Your task to perform on an android device: toggle pop-ups in chrome Image 0: 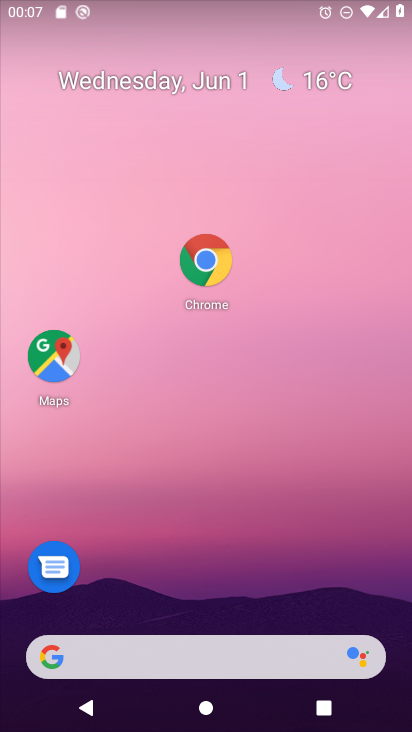
Step 0: click (230, 258)
Your task to perform on an android device: toggle pop-ups in chrome Image 1: 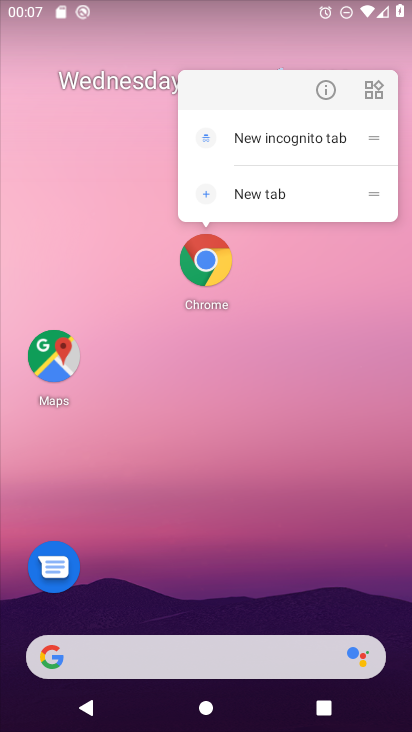
Step 1: click (196, 267)
Your task to perform on an android device: toggle pop-ups in chrome Image 2: 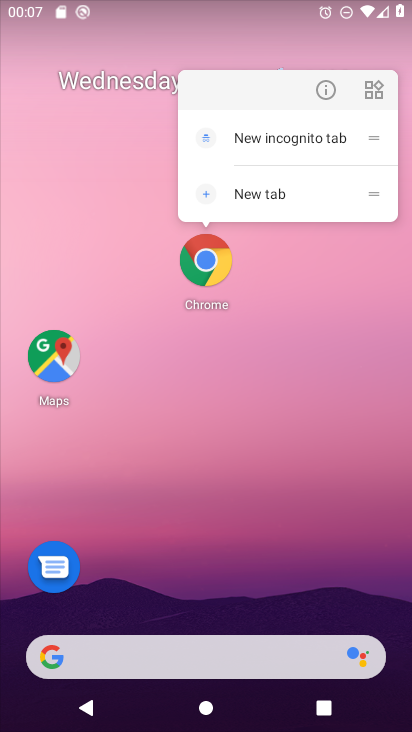
Step 2: click (204, 267)
Your task to perform on an android device: toggle pop-ups in chrome Image 3: 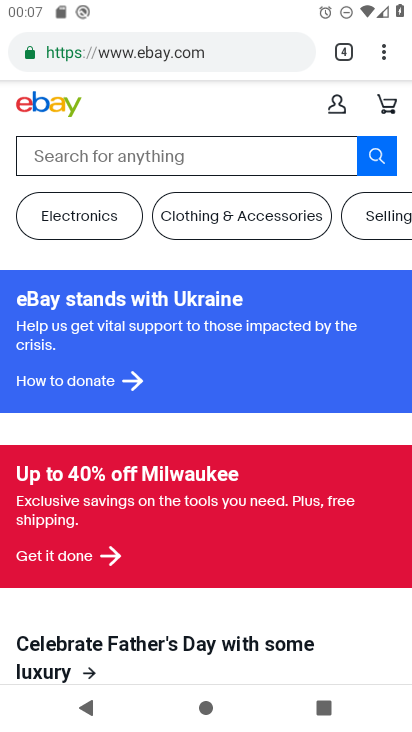
Step 3: click (381, 56)
Your task to perform on an android device: toggle pop-ups in chrome Image 4: 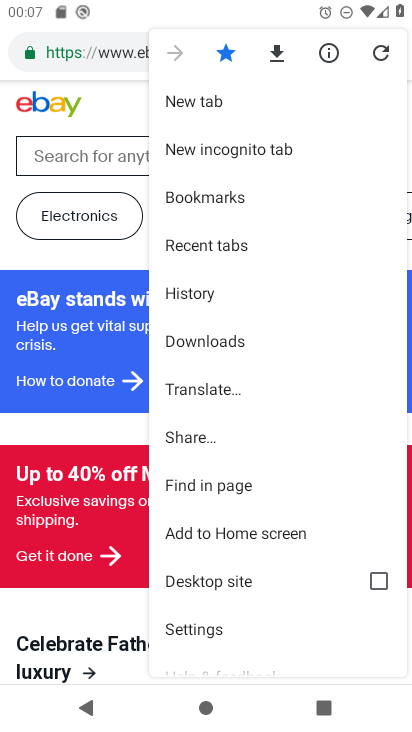
Step 4: click (205, 618)
Your task to perform on an android device: toggle pop-ups in chrome Image 5: 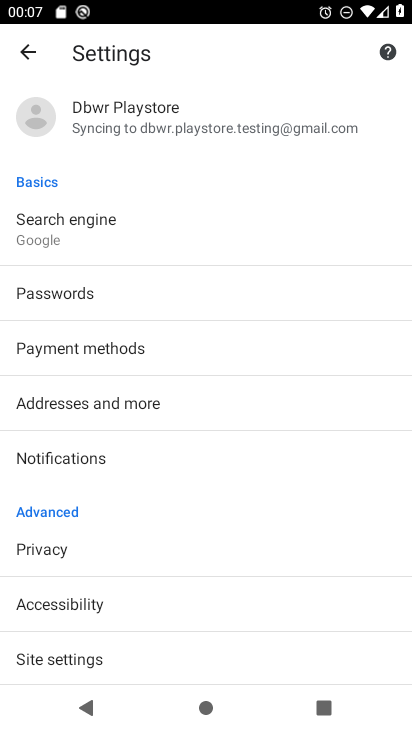
Step 5: click (45, 658)
Your task to perform on an android device: toggle pop-ups in chrome Image 6: 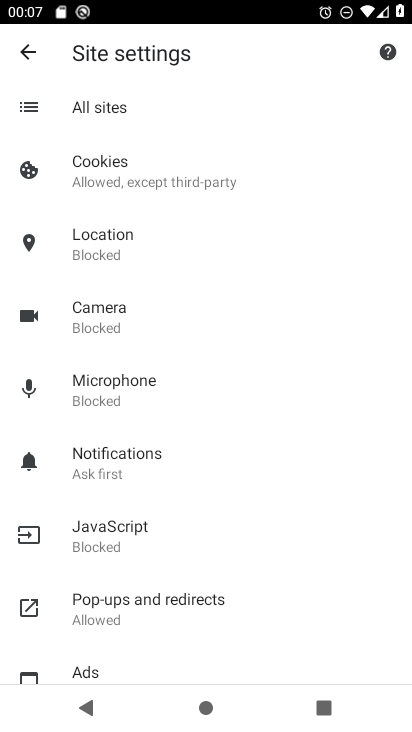
Step 6: click (116, 605)
Your task to perform on an android device: toggle pop-ups in chrome Image 7: 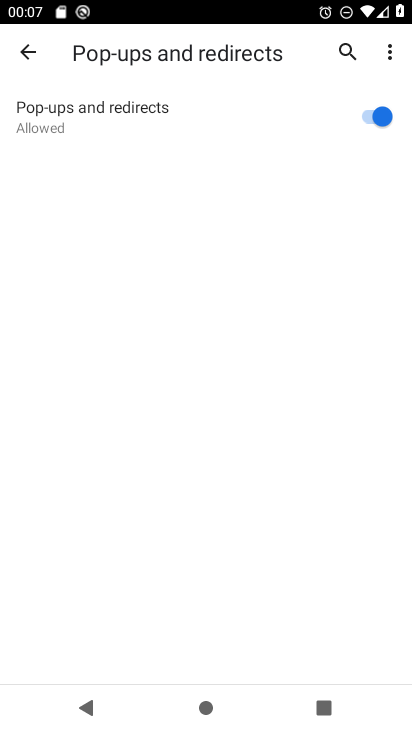
Step 7: click (365, 112)
Your task to perform on an android device: toggle pop-ups in chrome Image 8: 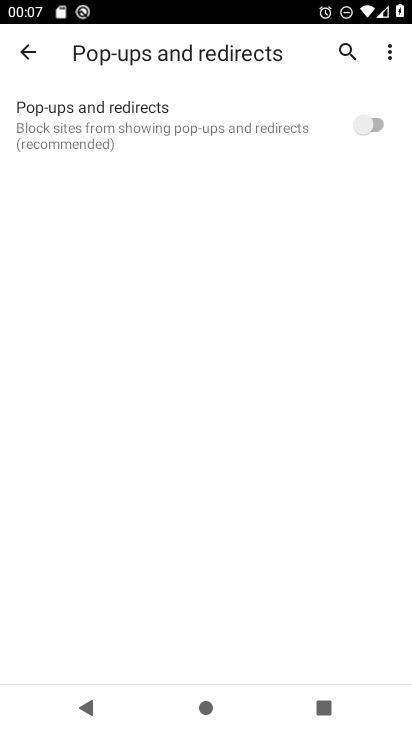
Step 8: task complete